Your task to perform on an android device: Add apple airpods pro to the cart on amazon.com, then select checkout. Image 0: 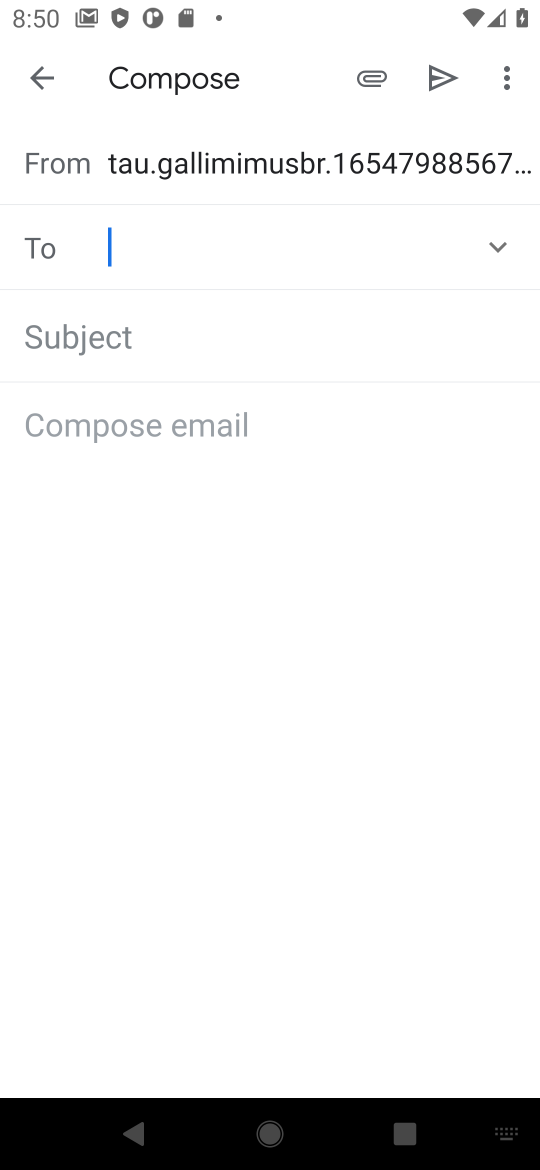
Step 0: press home button
Your task to perform on an android device: Add apple airpods pro to the cart on amazon.com, then select checkout. Image 1: 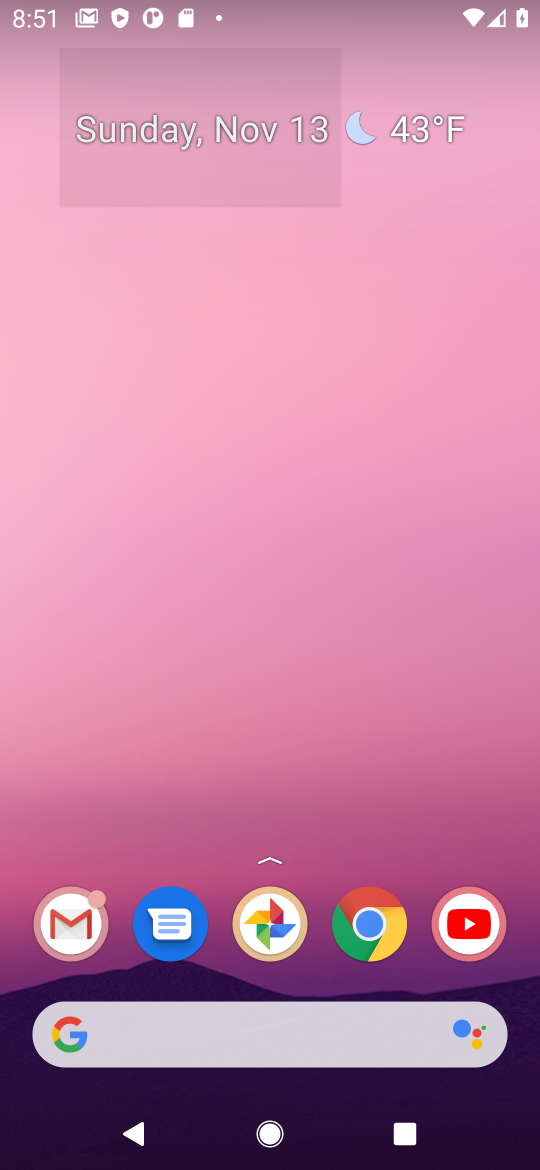
Step 1: click (381, 921)
Your task to perform on an android device: Add apple airpods pro to the cart on amazon.com, then select checkout. Image 2: 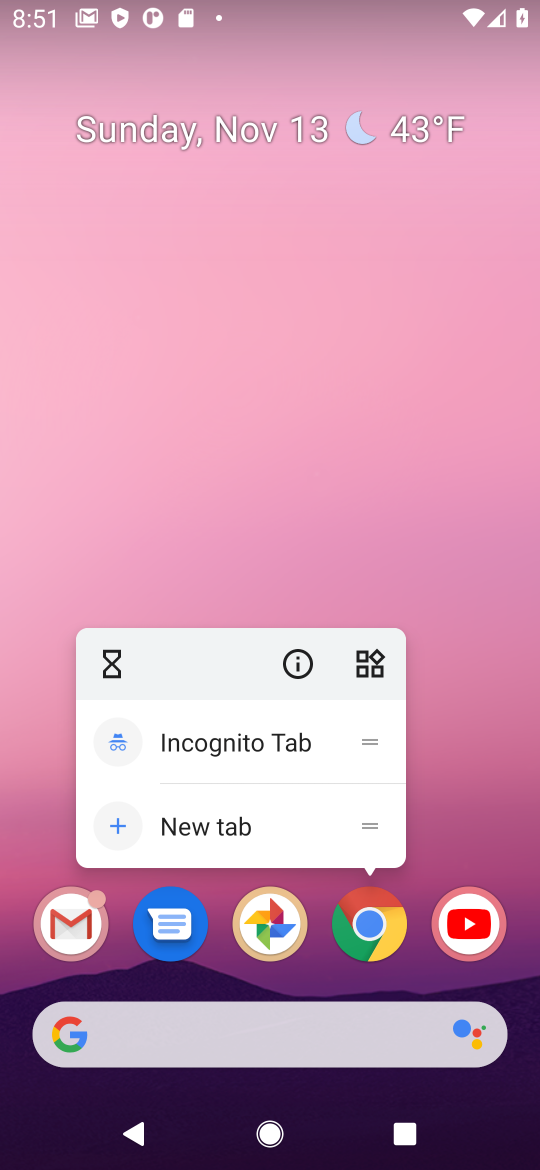
Step 2: click (381, 921)
Your task to perform on an android device: Add apple airpods pro to the cart on amazon.com, then select checkout. Image 3: 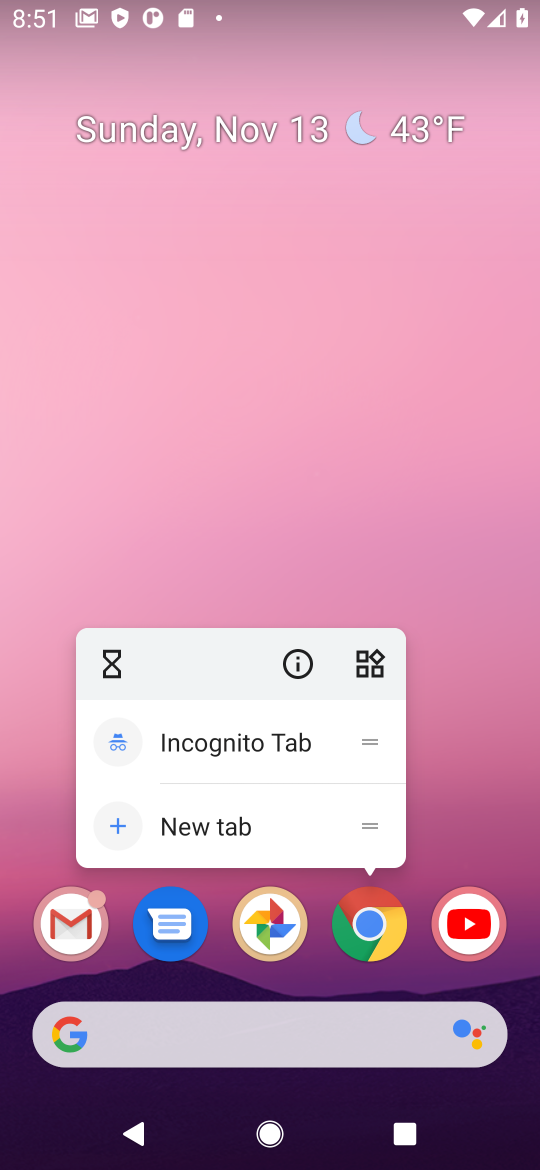
Step 3: click (381, 921)
Your task to perform on an android device: Add apple airpods pro to the cart on amazon.com, then select checkout. Image 4: 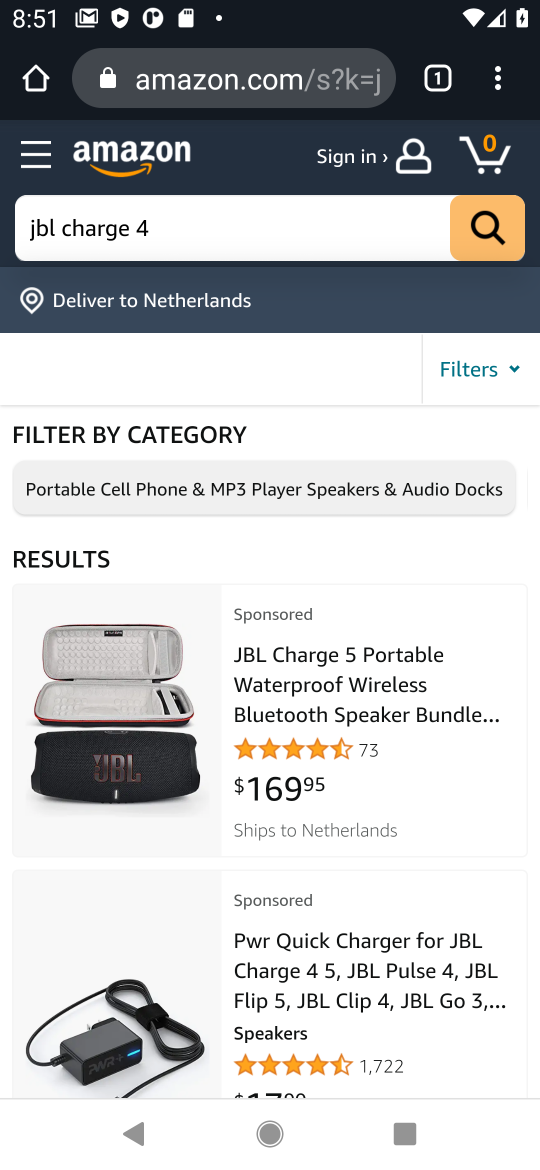
Step 4: click (275, 224)
Your task to perform on an android device: Add apple airpods pro to the cart on amazon.com, then select checkout. Image 5: 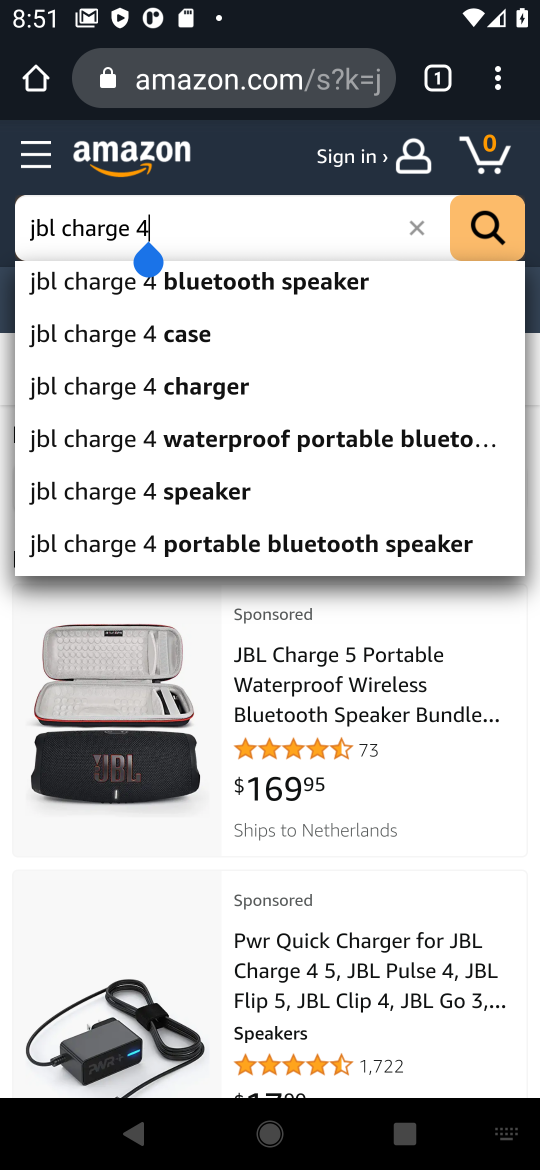
Step 5: click (418, 229)
Your task to perform on an android device: Add apple airpods pro to the cart on amazon.com, then select checkout. Image 6: 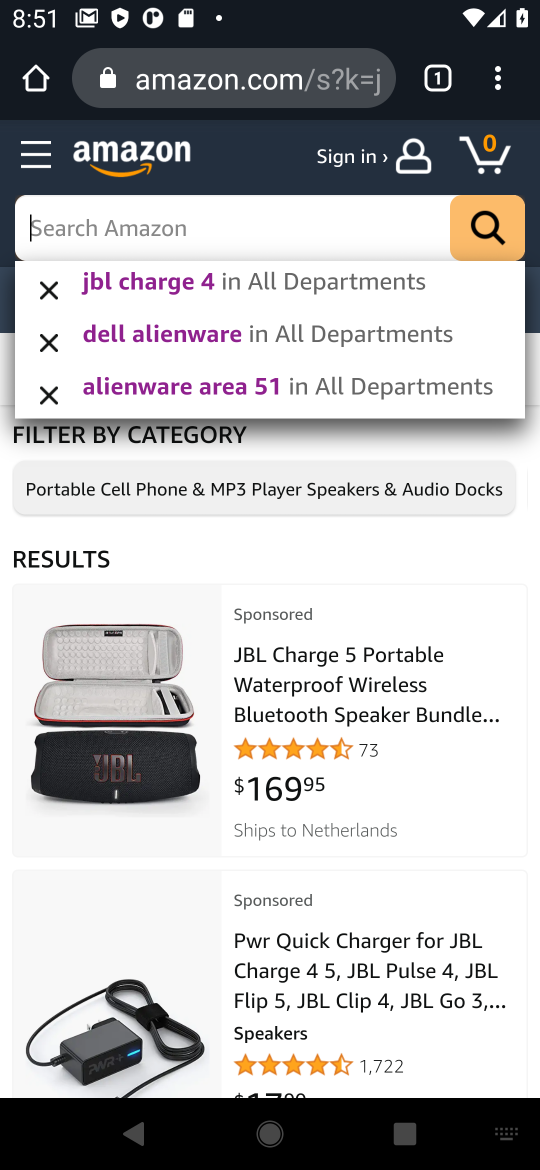
Step 6: press enter
Your task to perform on an android device: Add apple airpods pro to the cart on amazon.com, then select checkout. Image 7: 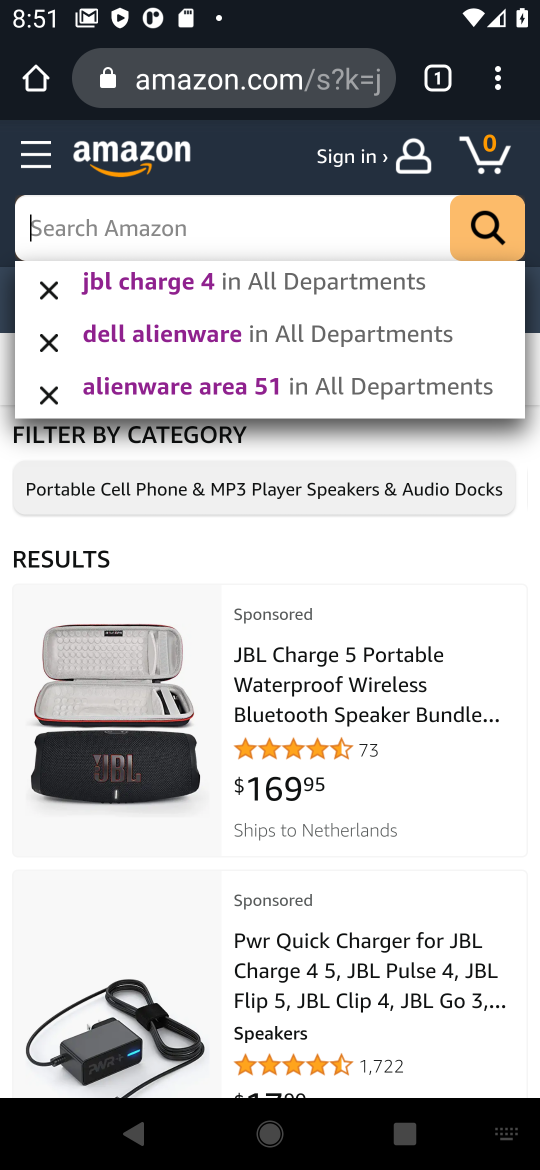
Step 7: type " apple airpods pro"
Your task to perform on an android device: Add apple airpods pro to the cart on amazon.com, then select checkout. Image 8: 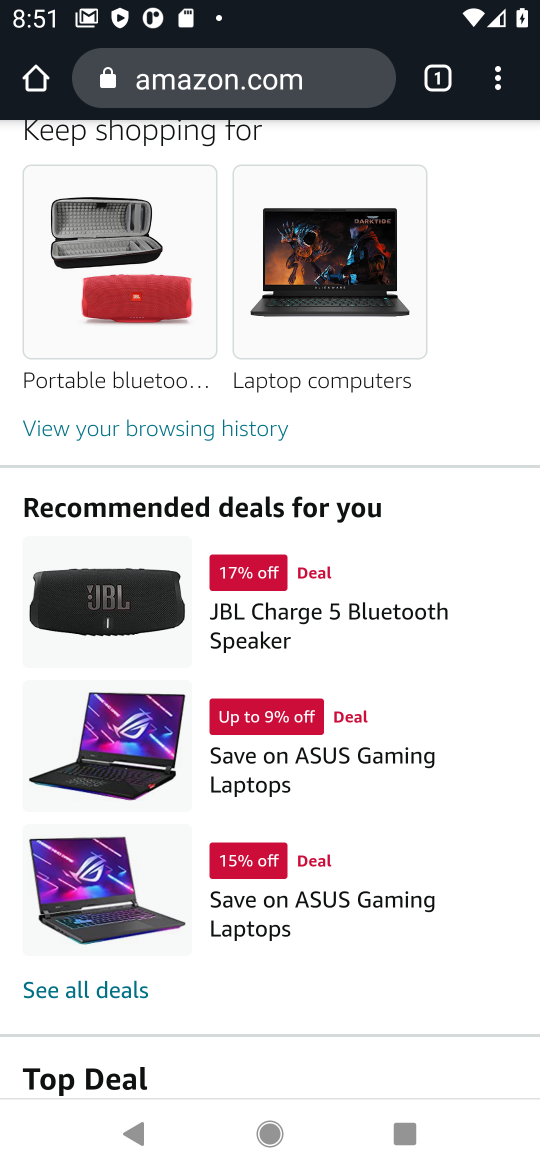
Step 8: drag from (433, 328) to (311, 1119)
Your task to perform on an android device: Add apple airpods pro to the cart on amazon.com, then select checkout. Image 9: 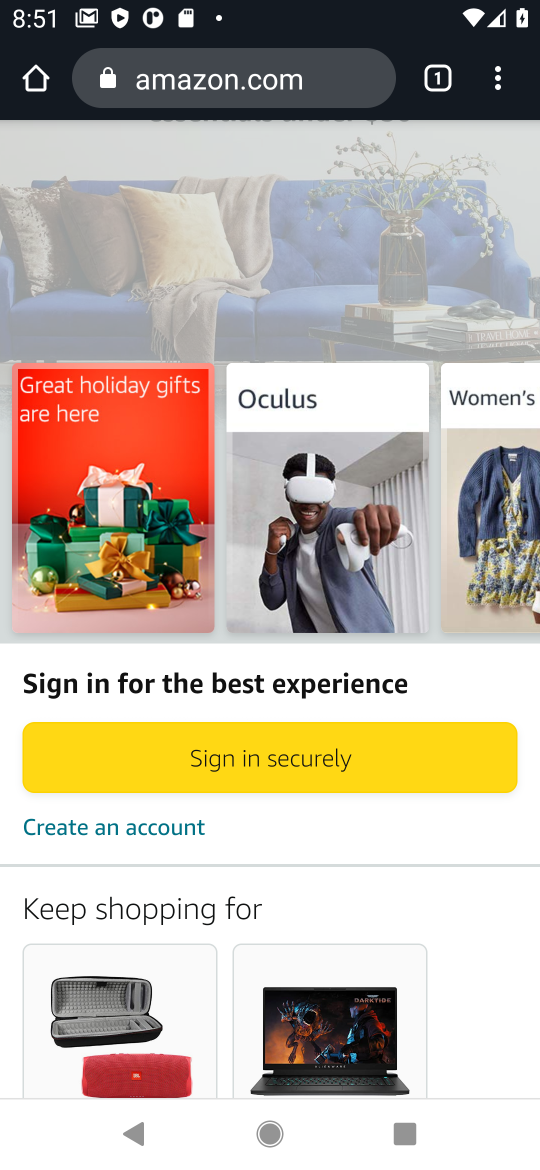
Step 9: drag from (414, 325) to (139, 1085)
Your task to perform on an android device: Add apple airpods pro to the cart on amazon.com, then select checkout. Image 10: 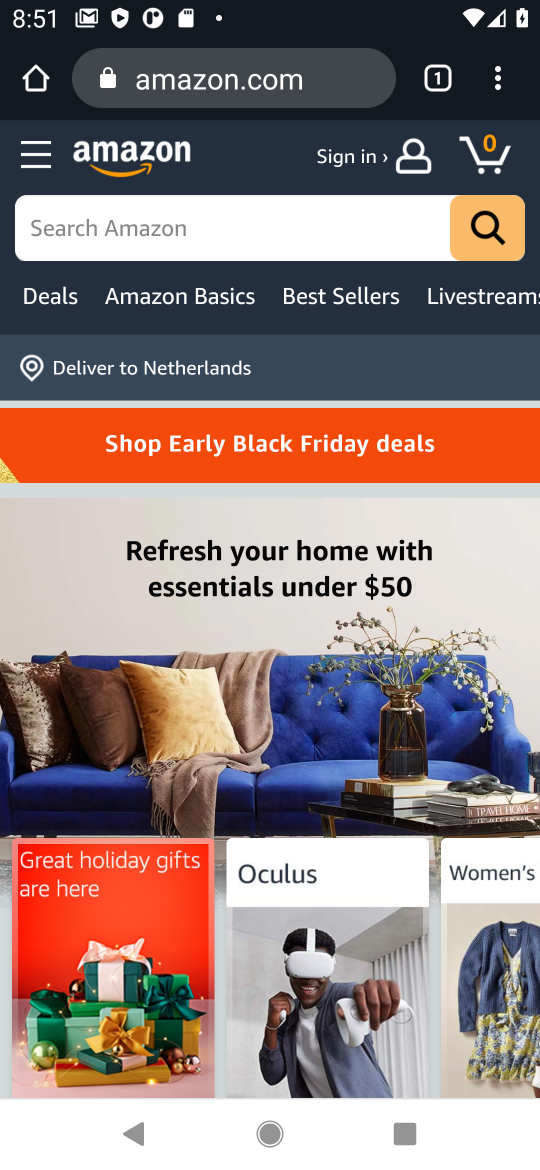
Step 10: click (101, 206)
Your task to perform on an android device: Add apple airpods pro to the cart on amazon.com, then select checkout. Image 11: 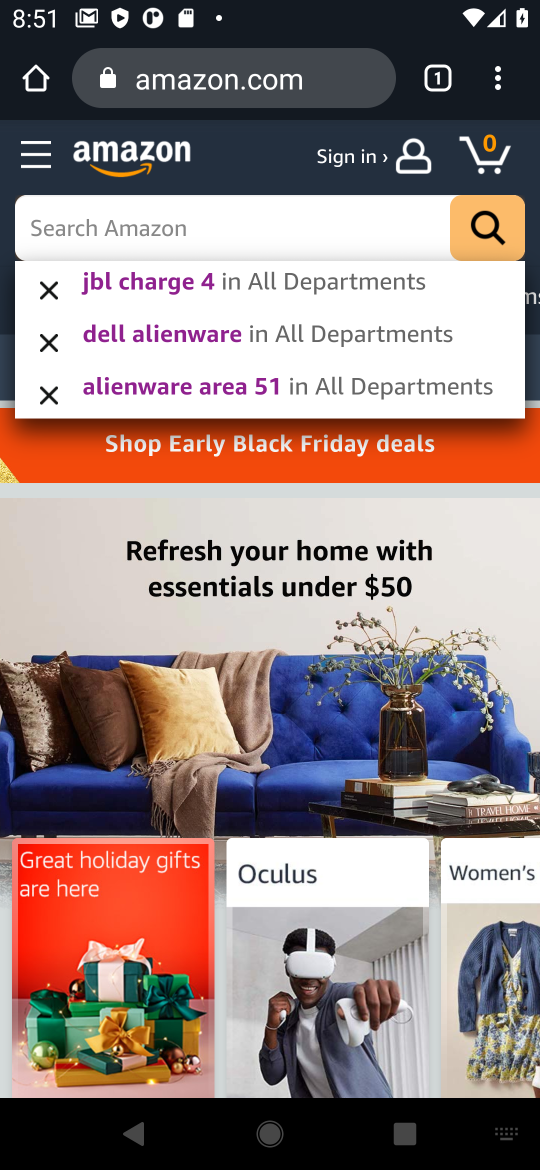
Step 11: click (100, 218)
Your task to perform on an android device: Add apple airpods pro to the cart on amazon.com, then select checkout. Image 12: 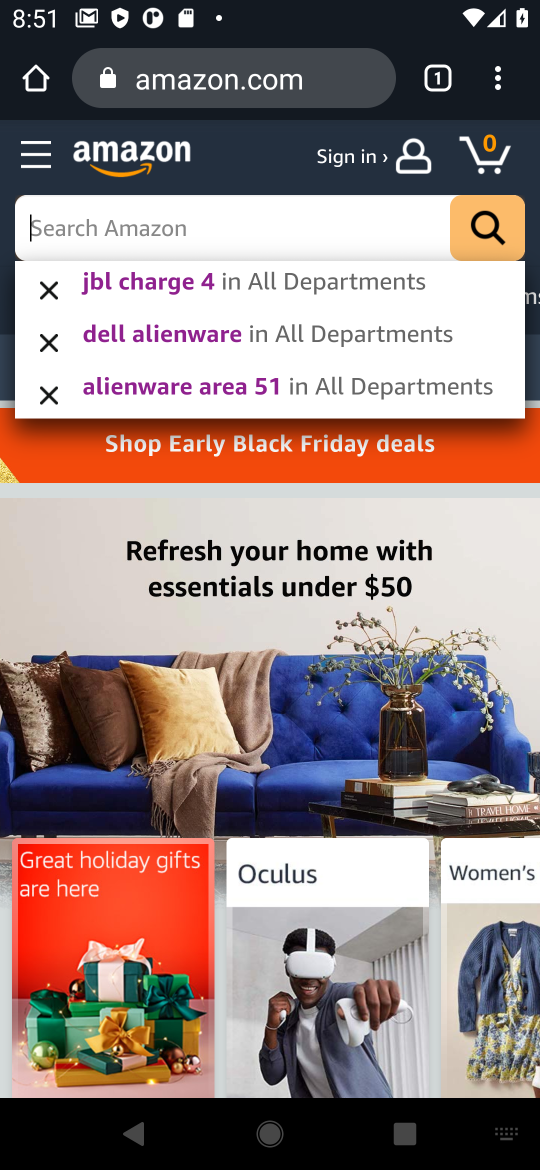
Step 12: type " apple airpods pro"
Your task to perform on an android device: Add apple airpods pro to the cart on amazon.com, then select checkout. Image 13: 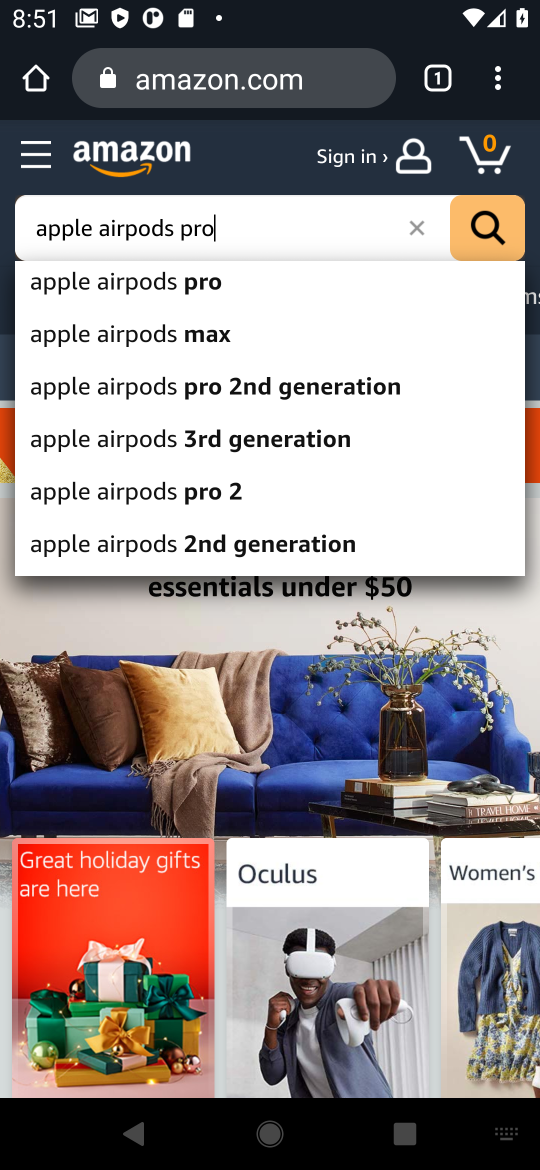
Step 13: press enter
Your task to perform on an android device: Add apple airpods pro to the cart on amazon.com, then select checkout. Image 14: 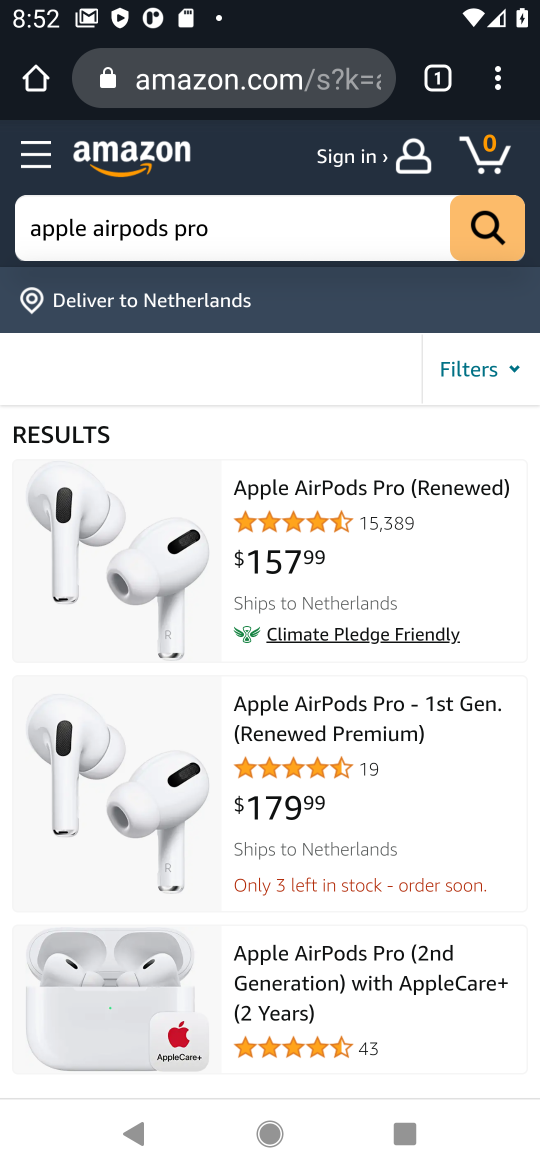
Step 14: click (375, 506)
Your task to perform on an android device: Add apple airpods pro to the cart on amazon.com, then select checkout. Image 15: 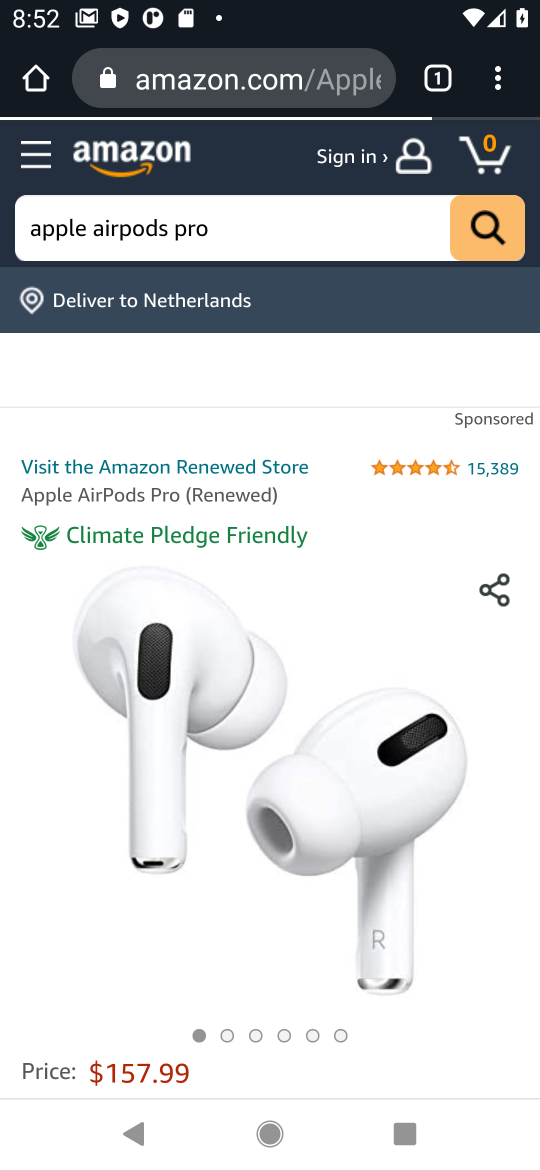
Step 15: drag from (348, 956) to (443, 462)
Your task to perform on an android device: Add apple airpods pro to the cart on amazon.com, then select checkout. Image 16: 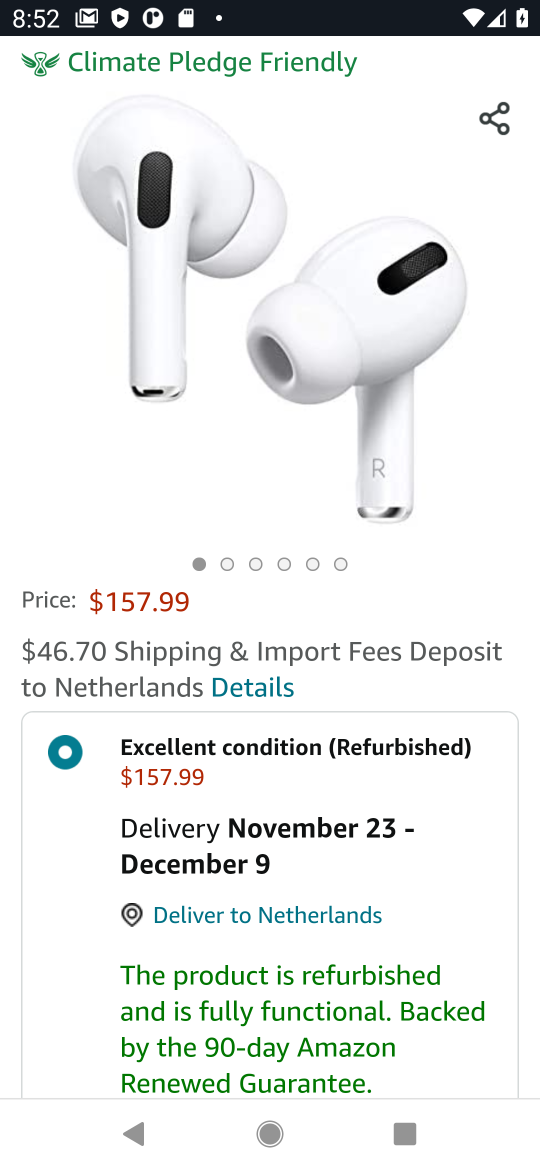
Step 16: drag from (279, 1074) to (405, 555)
Your task to perform on an android device: Add apple airpods pro to the cart on amazon.com, then select checkout. Image 17: 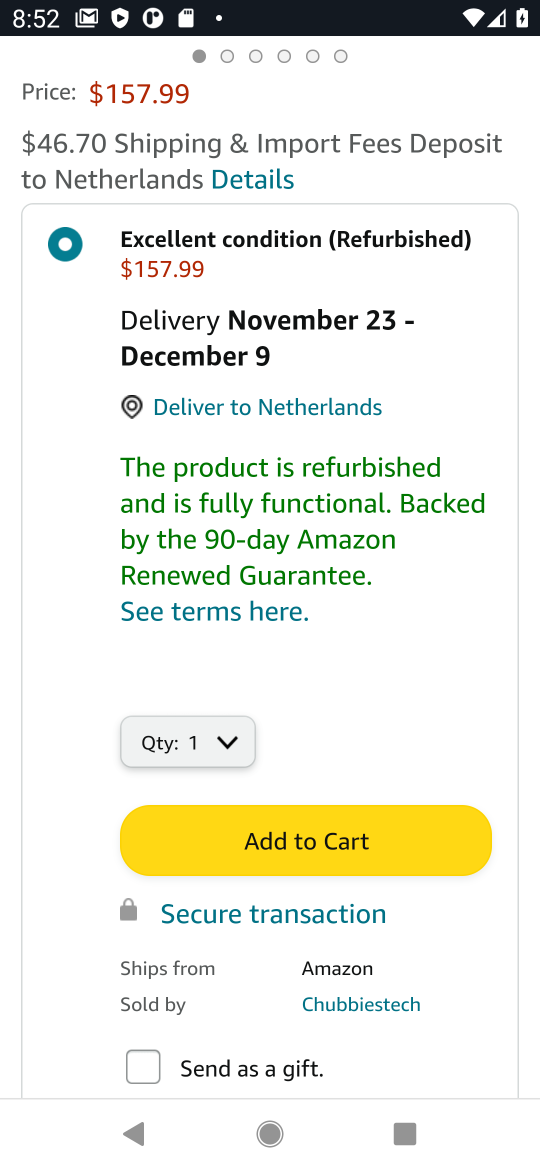
Step 17: click (344, 835)
Your task to perform on an android device: Add apple airpods pro to the cart on amazon.com, then select checkout. Image 18: 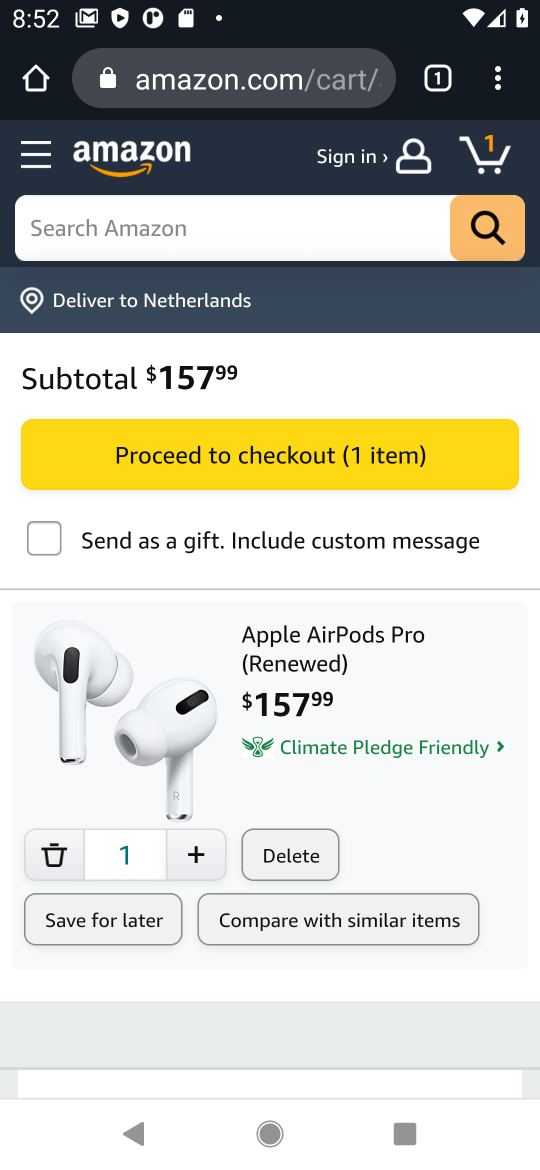
Step 18: click (276, 446)
Your task to perform on an android device: Add apple airpods pro to the cart on amazon.com, then select checkout. Image 19: 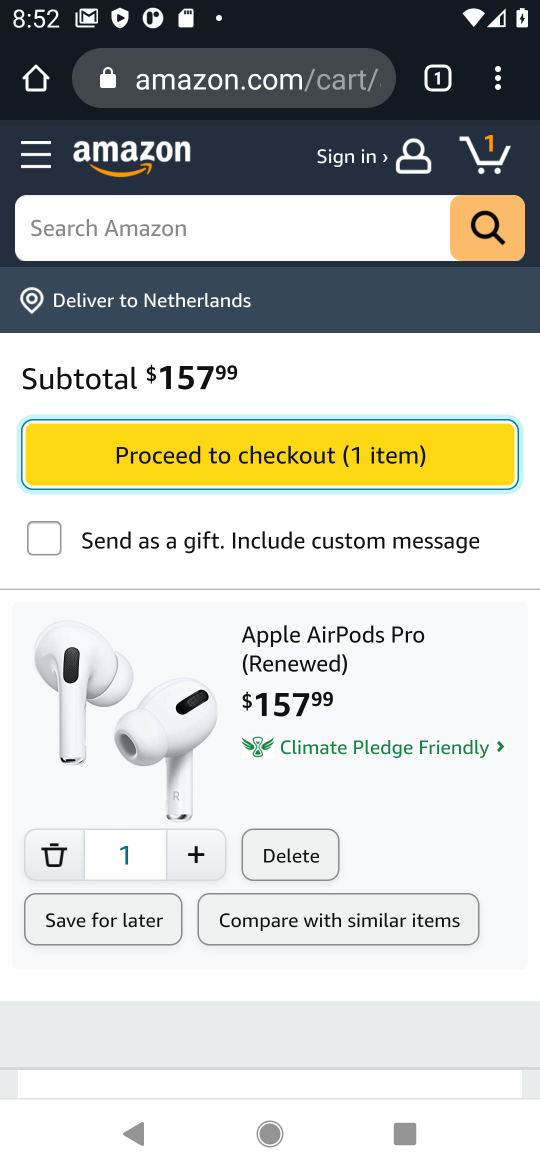
Step 19: click (270, 465)
Your task to perform on an android device: Add apple airpods pro to the cart on amazon.com, then select checkout. Image 20: 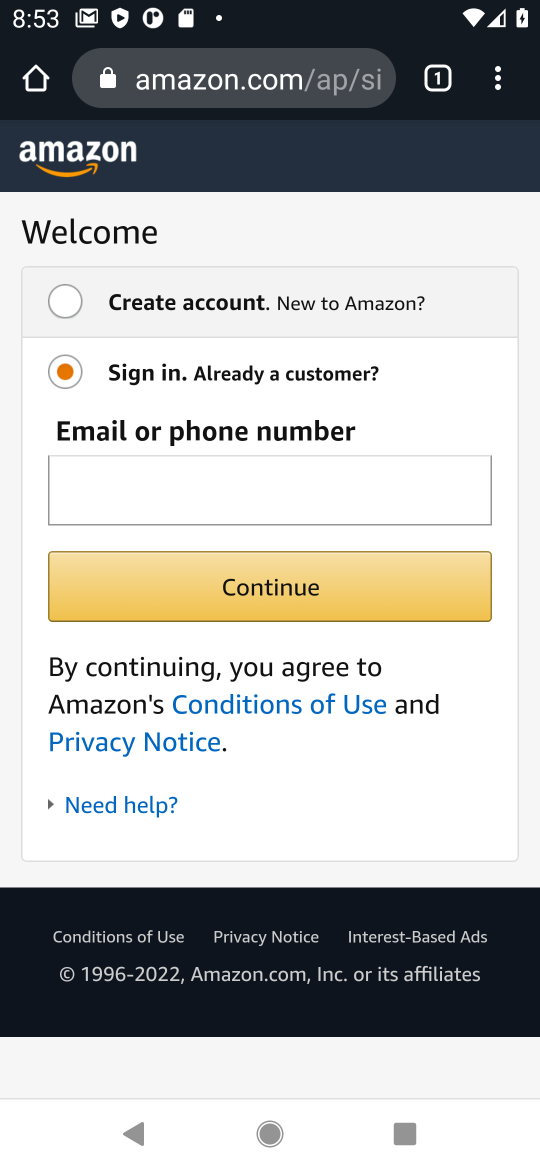
Step 20: task complete